Your task to perform on an android device: star an email in the gmail app Image 0: 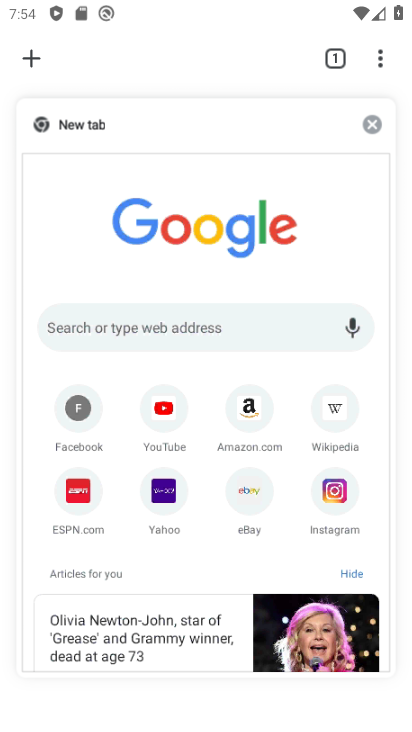
Step 0: press home button
Your task to perform on an android device: star an email in the gmail app Image 1: 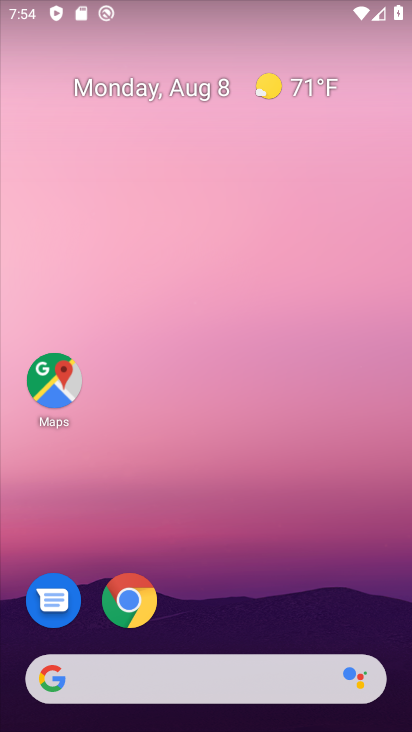
Step 1: drag from (216, 630) to (181, 83)
Your task to perform on an android device: star an email in the gmail app Image 2: 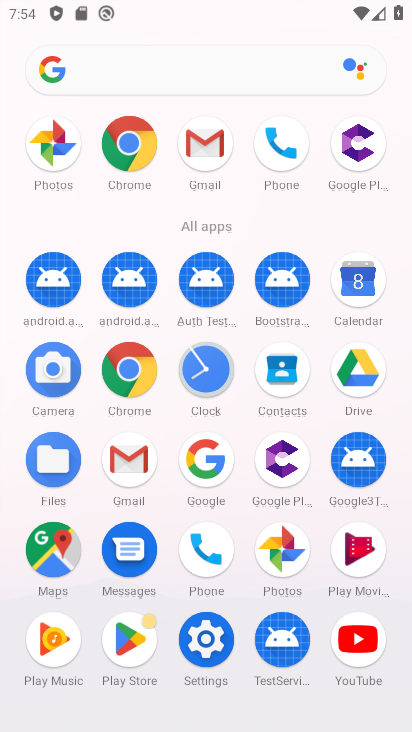
Step 2: click (124, 458)
Your task to perform on an android device: star an email in the gmail app Image 3: 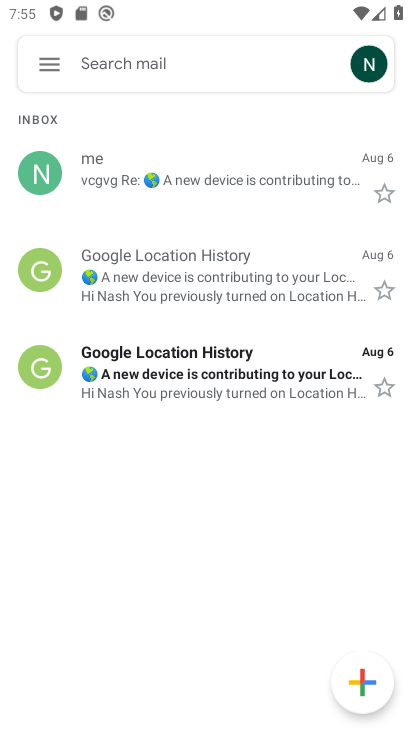
Step 3: click (392, 198)
Your task to perform on an android device: star an email in the gmail app Image 4: 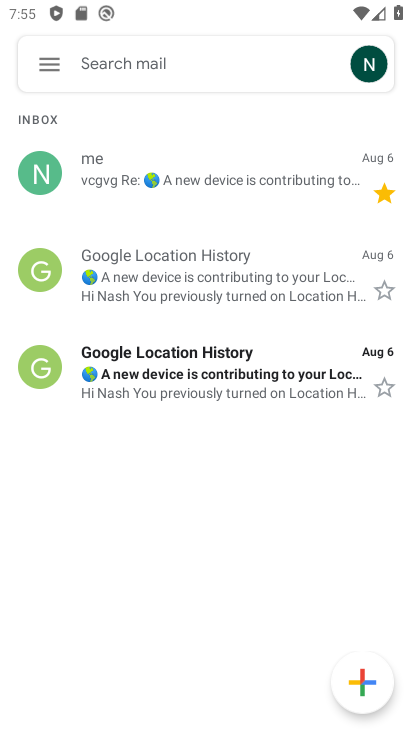
Step 4: task complete